Your task to perform on an android device: Check the news Image 0: 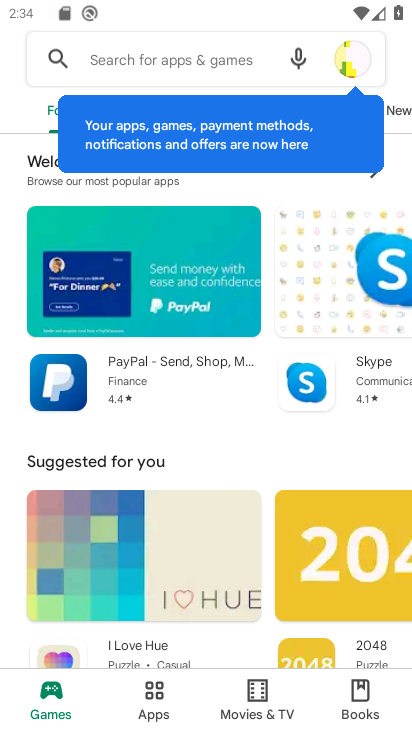
Step 0: press home button
Your task to perform on an android device: Check the news Image 1: 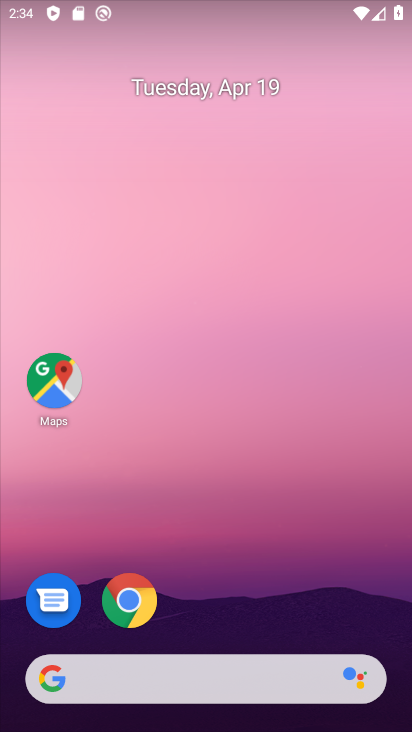
Step 1: task complete